Your task to perform on an android device: find photos in the google photos app Image 0: 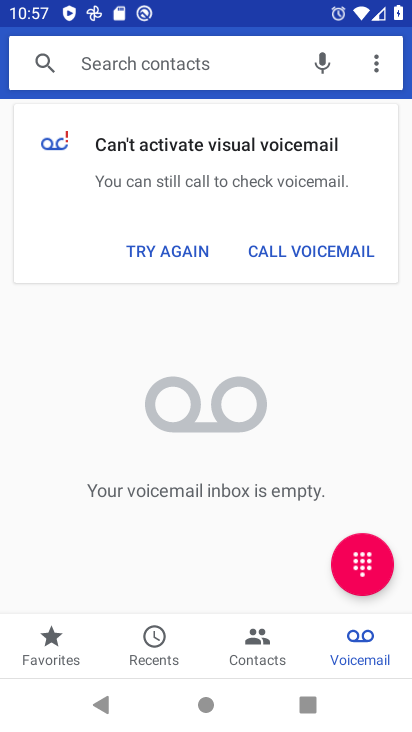
Step 0: press back button
Your task to perform on an android device: find photos in the google photos app Image 1: 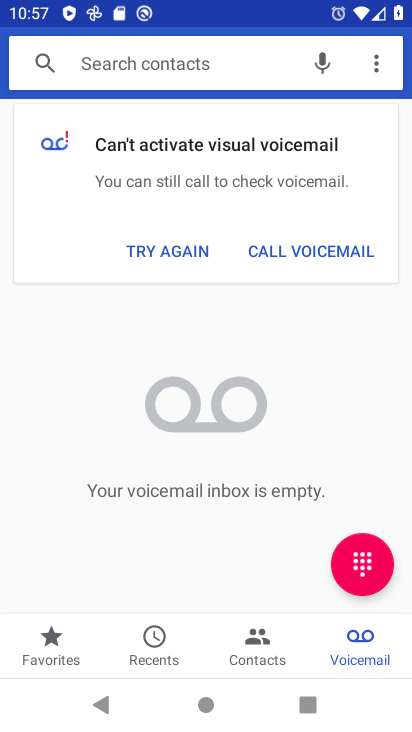
Step 1: press back button
Your task to perform on an android device: find photos in the google photos app Image 2: 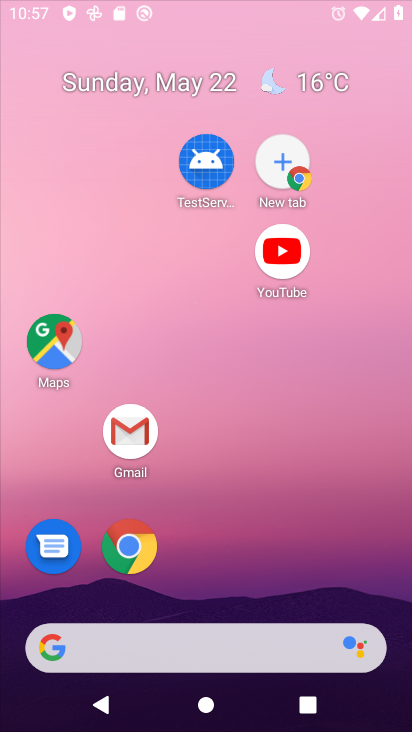
Step 2: press back button
Your task to perform on an android device: find photos in the google photos app Image 3: 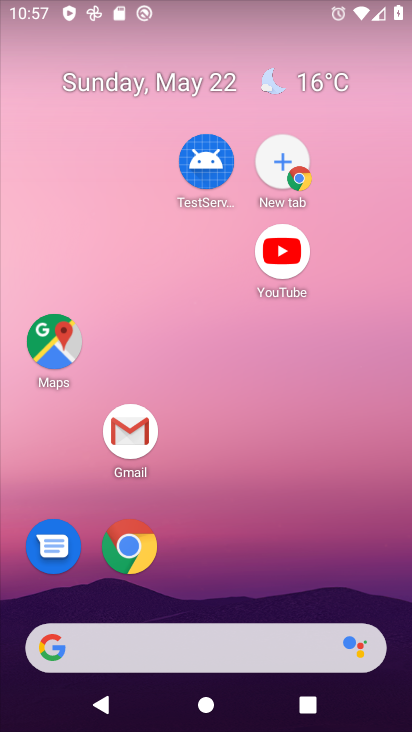
Step 3: drag from (250, 510) to (187, 249)
Your task to perform on an android device: find photos in the google photos app Image 4: 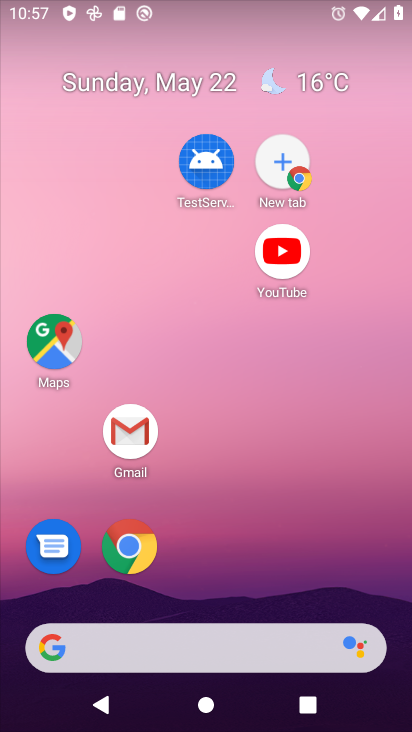
Step 4: drag from (252, 539) to (219, 182)
Your task to perform on an android device: find photos in the google photos app Image 5: 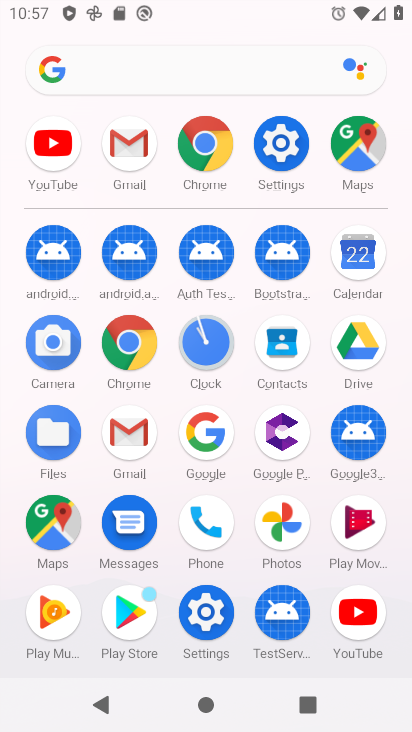
Step 5: click (283, 528)
Your task to perform on an android device: find photos in the google photos app Image 6: 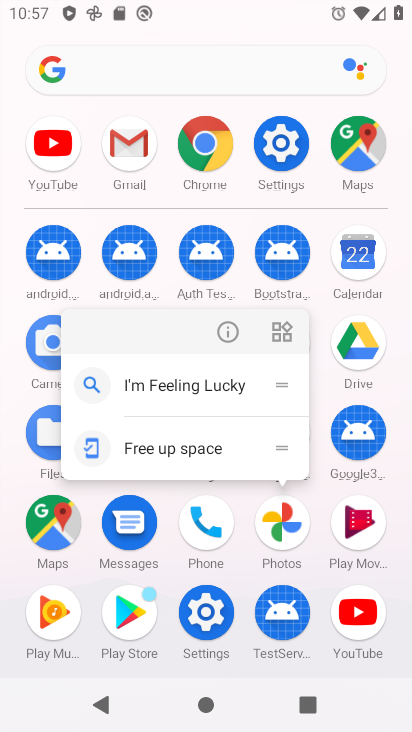
Step 6: click (279, 518)
Your task to perform on an android device: find photos in the google photos app Image 7: 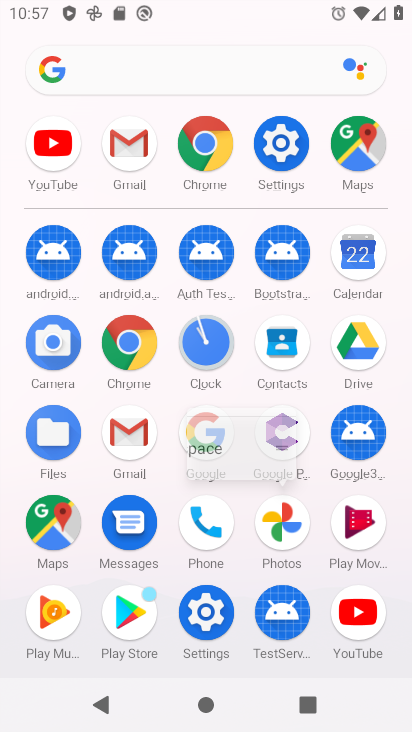
Step 7: click (279, 518)
Your task to perform on an android device: find photos in the google photos app Image 8: 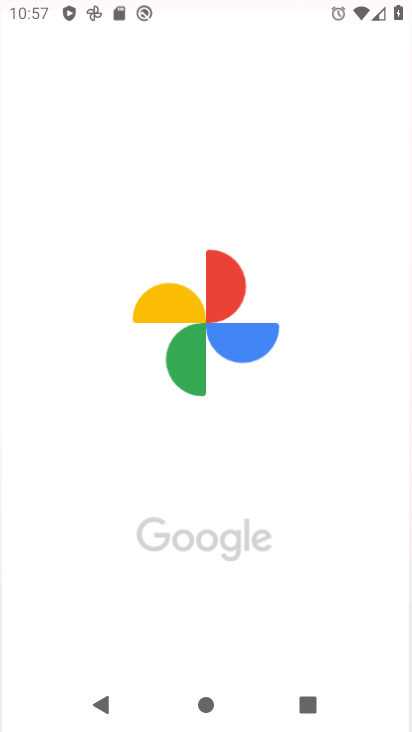
Step 8: click (279, 517)
Your task to perform on an android device: find photos in the google photos app Image 9: 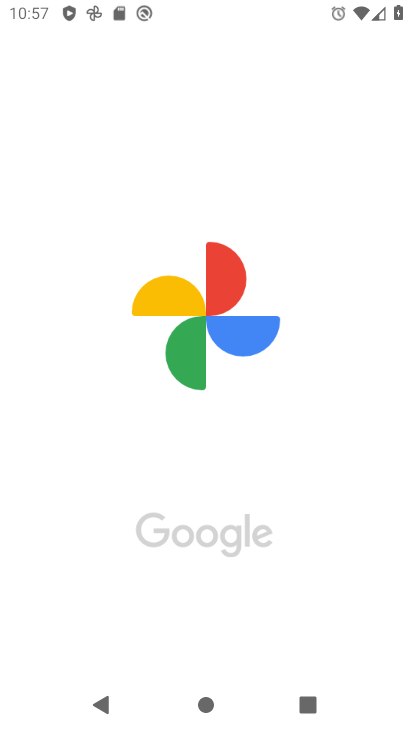
Step 9: click (279, 517)
Your task to perform on an android device: find photos in the google photos app Image 10: 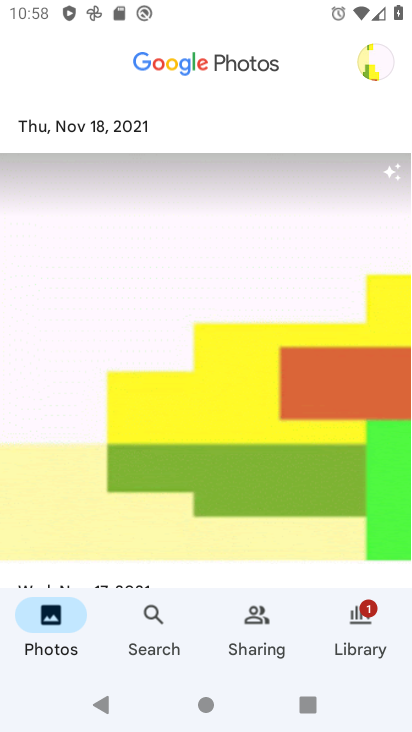
Step 10: drag from (248, 436) to (225, 253)
Your task to perform on an android device: find photos in the google photos app Image 11: 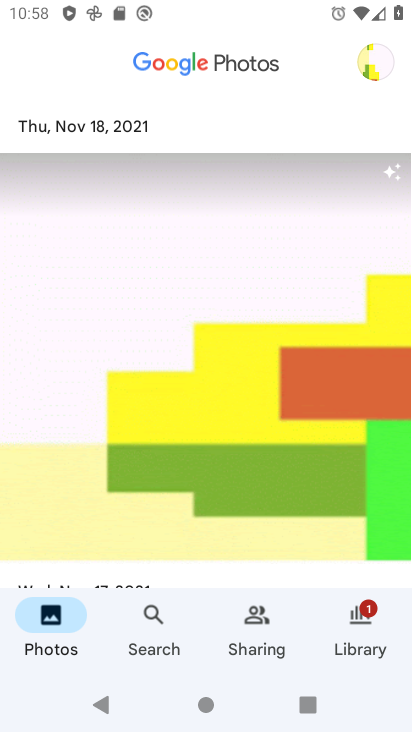
Step 11: drag from (275, 496) to (241, 265)
Your task to perform on an android device: find photos in the google photos app Image 12: 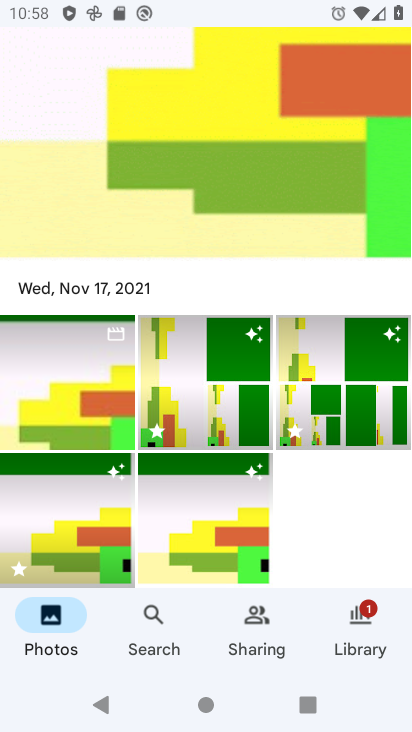
Step 12: drag from (257, 469) to (241, 197)
Your task to perform on an android device: find photos in the google photos app Image 13: 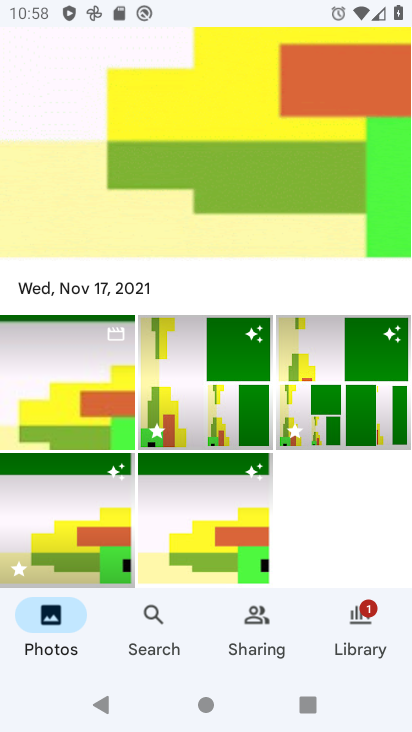
Step 13: drag from (242, 230) to (235, 0)
Your task to perform on an android device: find photos in the google photos app Image 14: 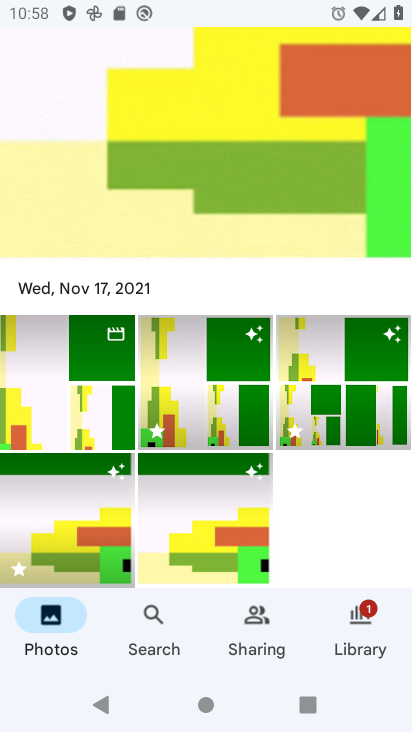
Step 14: click (207, 75)
Your task to perform on an android device: find photos in the google photos app Image 15: 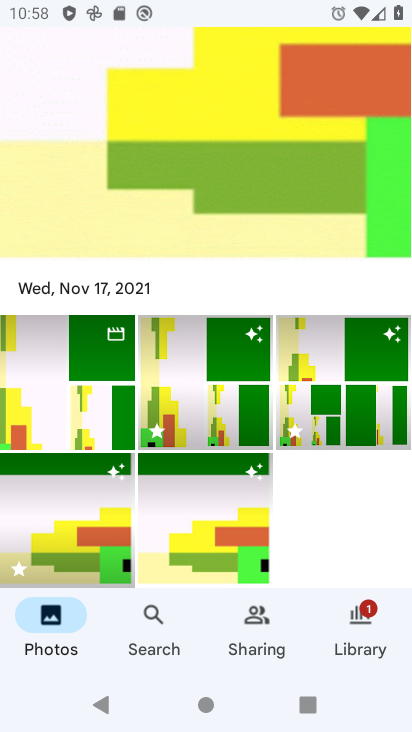
Step 15: drag from (206, 401) to (170, 89)
Your task to perform on an android device: find photos in the google photos app Image 16: 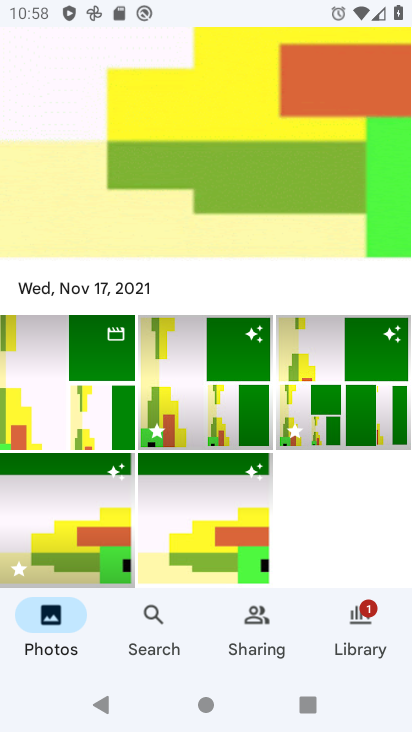
Step 16: drag from (159, 430) to (152, 8)
Your task to perform on an android device: find photos in the google photos app Image 17: 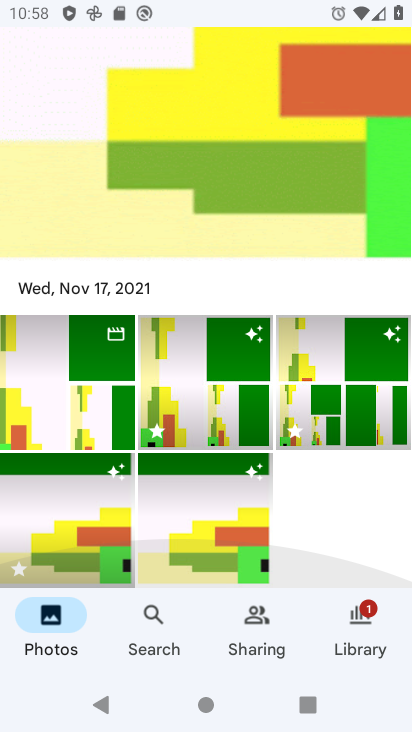
Step 17: drag from (215, 526) to (212, 261)
Your task to perform on an android device: find photos in the google photos app Image 18: 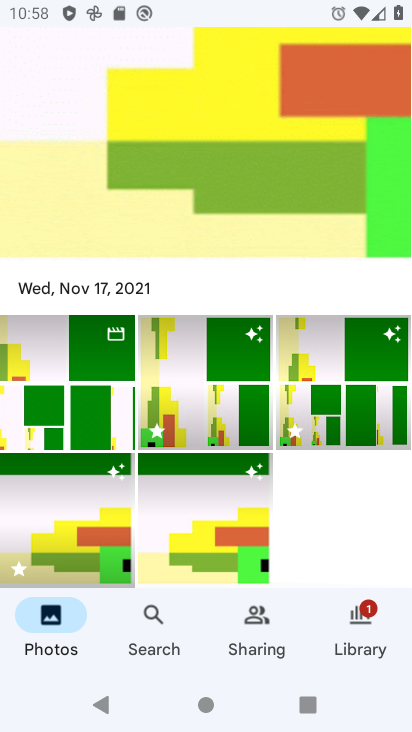
Step 18: drag from (212, 549) to (223, 100)
Your task to perform on an android device: find photos in the google photos app Image 19: 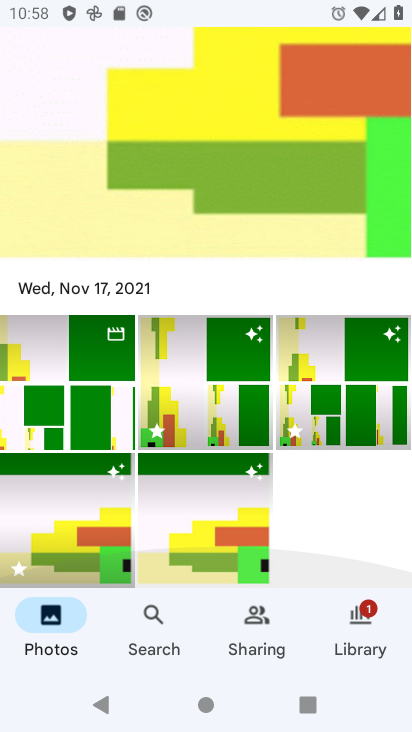
Step 19: drag from (238, 501) to (222, 121)
Your task to perform on an android device: find photos in the google photos app Image 20: 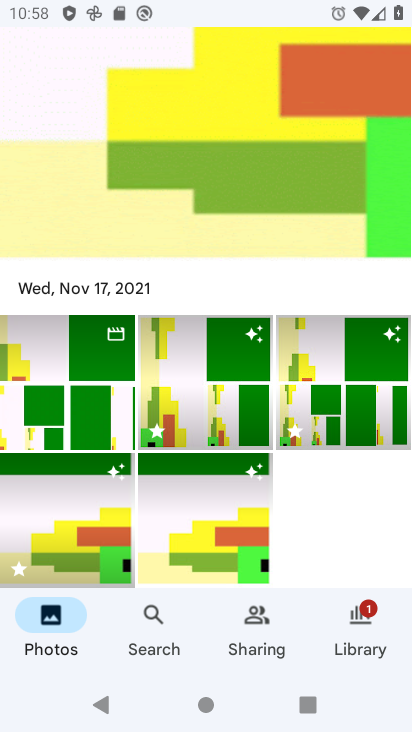
Step 20: drag from (217, 448) to (186, 110)
Your task to perform on an android device: find photos in the google photos app Image 21: 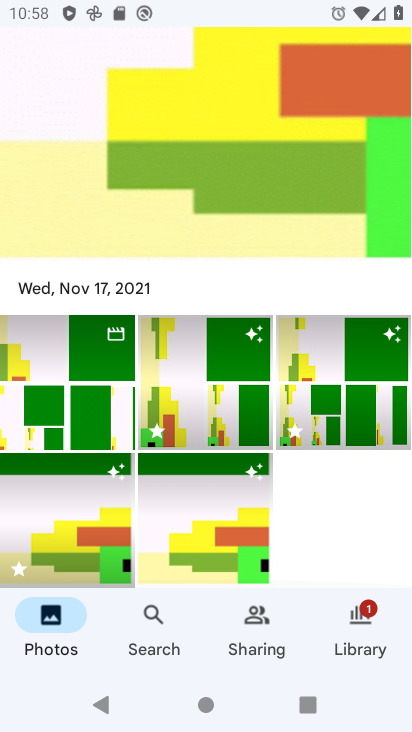
Step 21: click (178, 111)
Your task to perform on an android device: find photos in the google photos app Image 22: 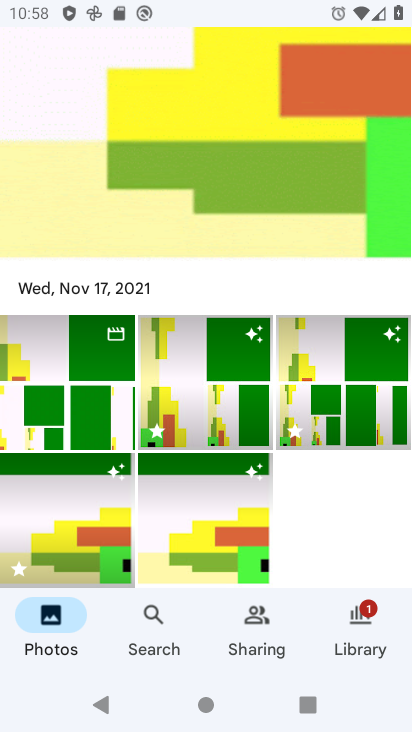
Step 22: task complete